Your task to perform on an android device: What's the news this weekend? Image 0: 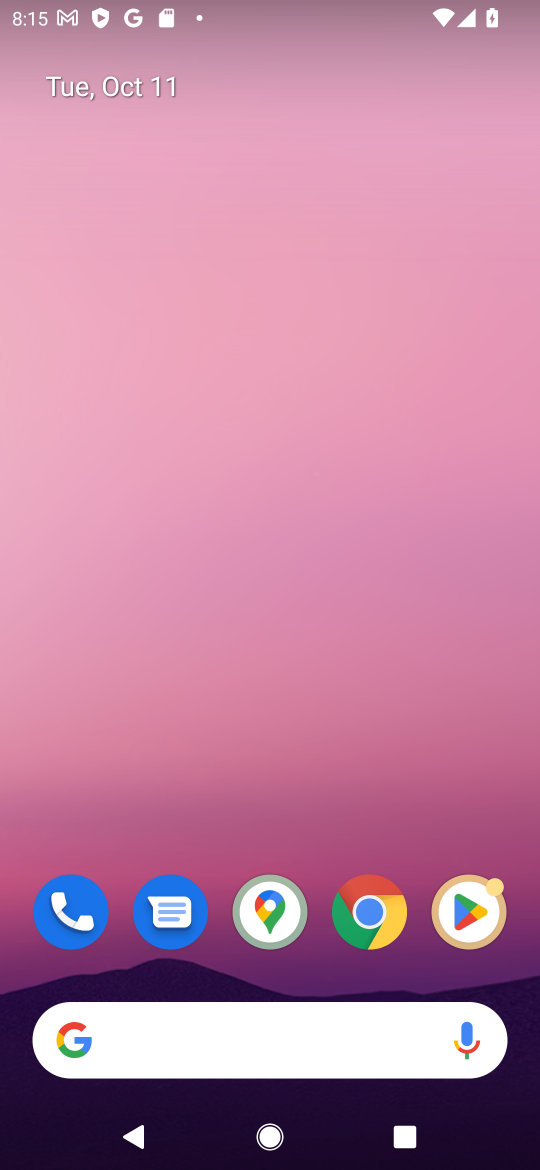
Step 0: click (378, 913)
Your task to perform on an android device: What's the news this weekend? Image 1: 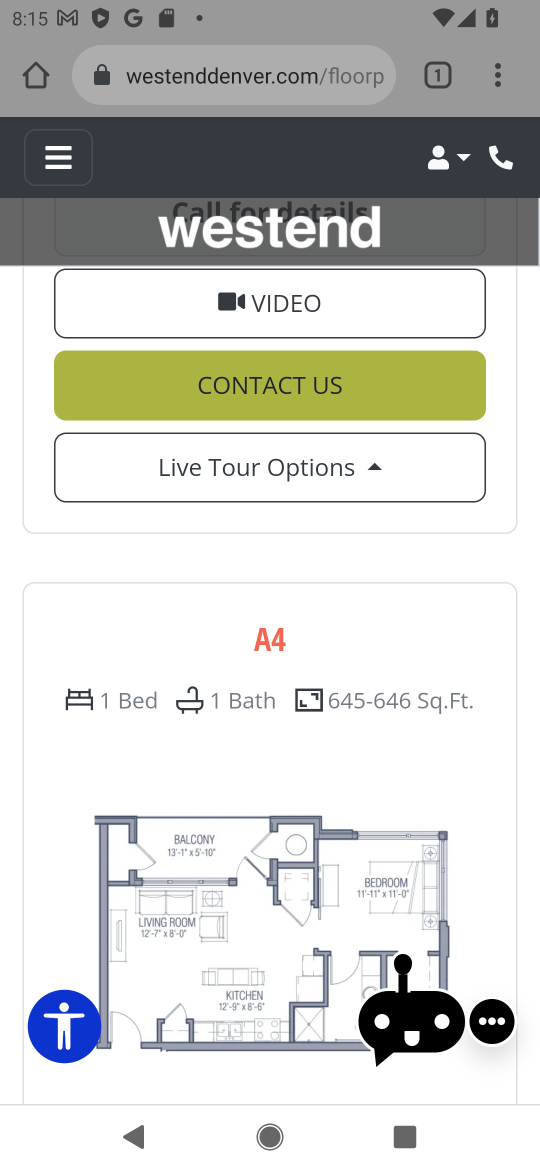
Step 1: click (208, 41)
Your task to perform on an android device: What's the news this weekend? Image 2: 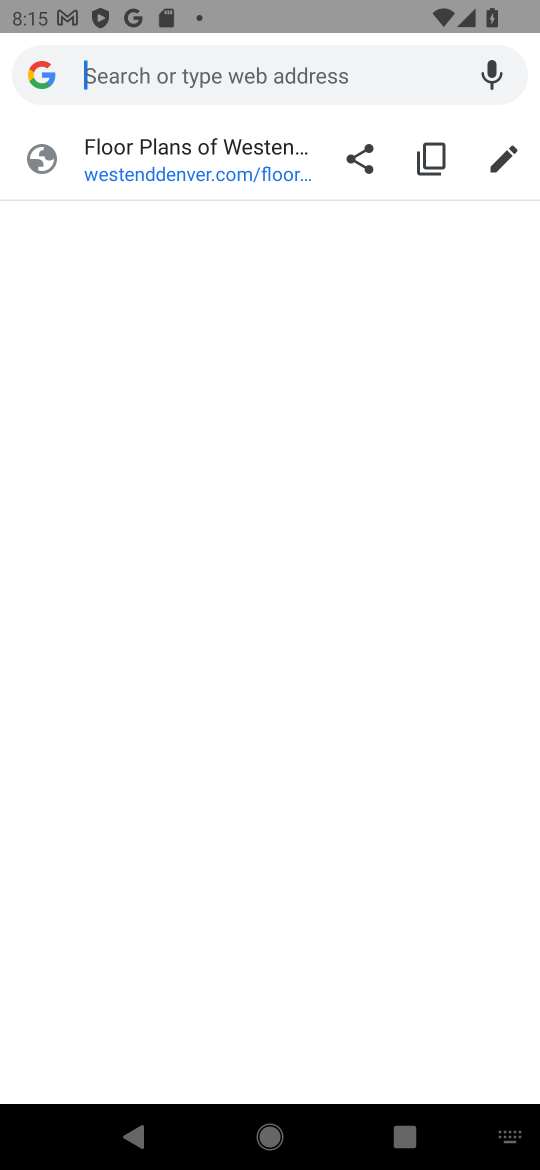
Step 2: type "news this weekend"
Your task to perform on an android device: What's the news this weekend? Image 3: 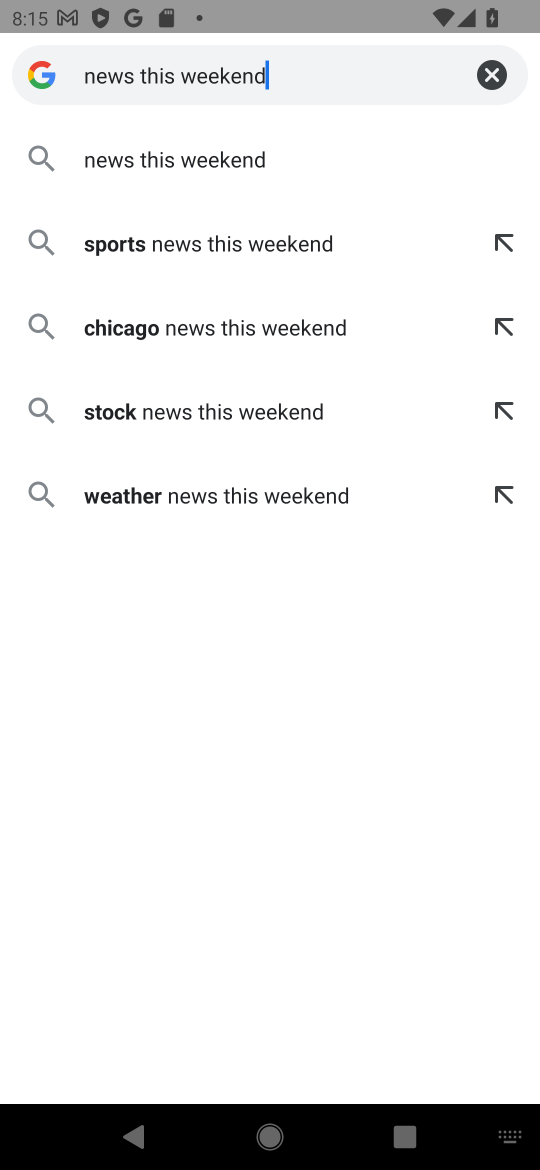
Step 3: click (159, 169)
Your task to perform on an android device: What's the news this weekend? Image 4: 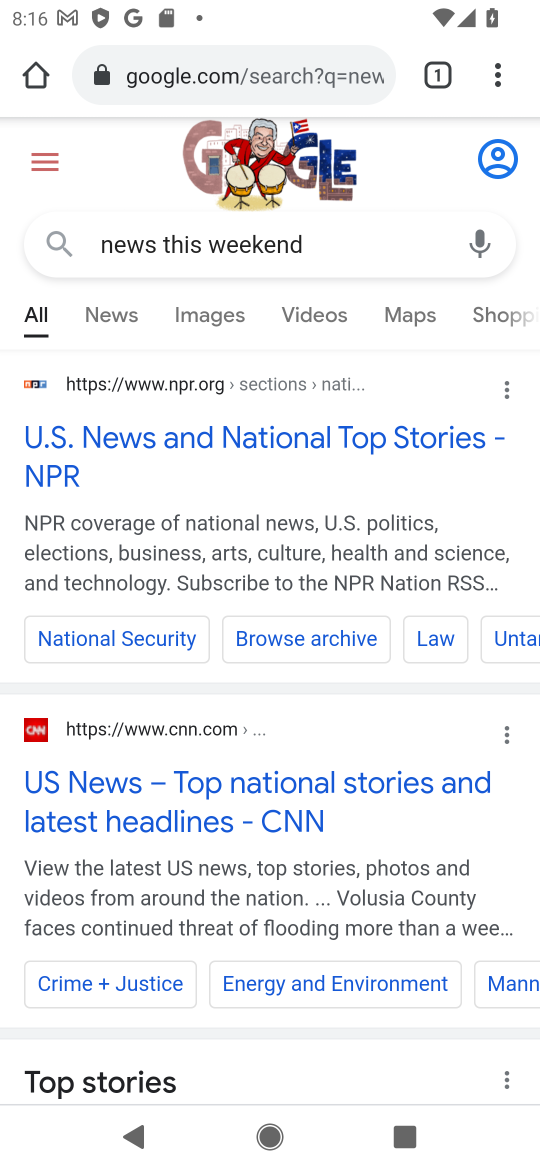
Step 4: click (88, 765)
Your task to perform on an android device: What's the news this weekend? Image 5: 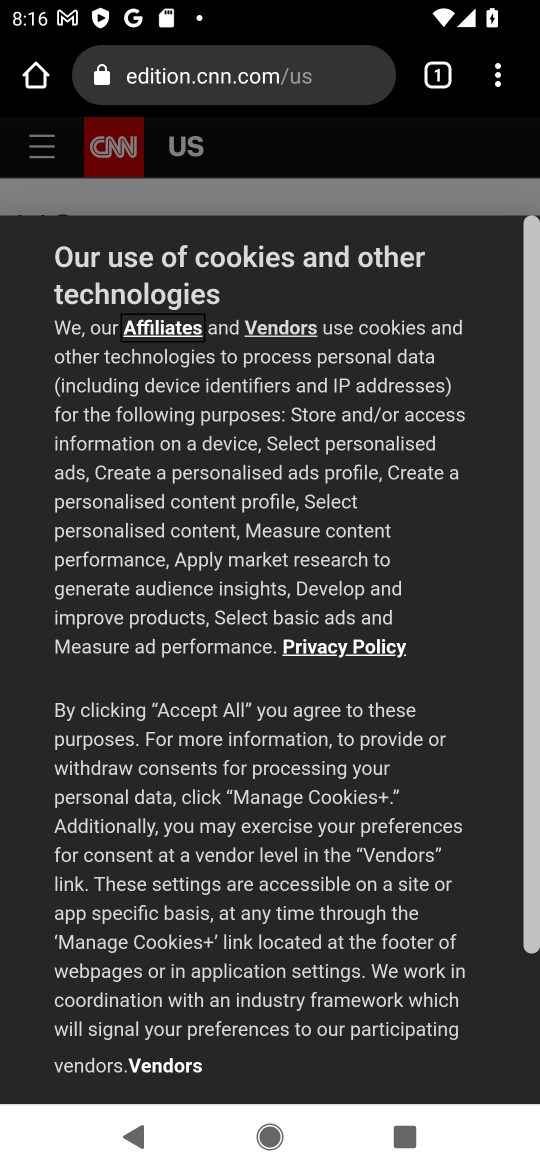
Step 5: drag from (239, 980) to (263, 400)
Your task to perform on an android device: What's the news this weekend? Image 6: 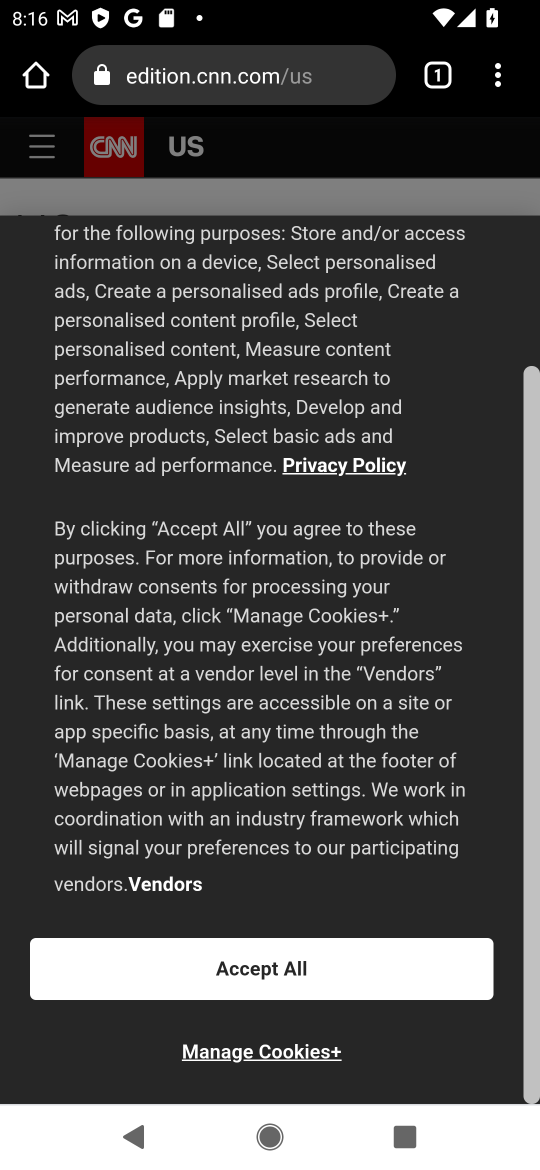
Step 6: click (252, 961)
Your task to perform on an android device: What's the news this weekend? Image 7: 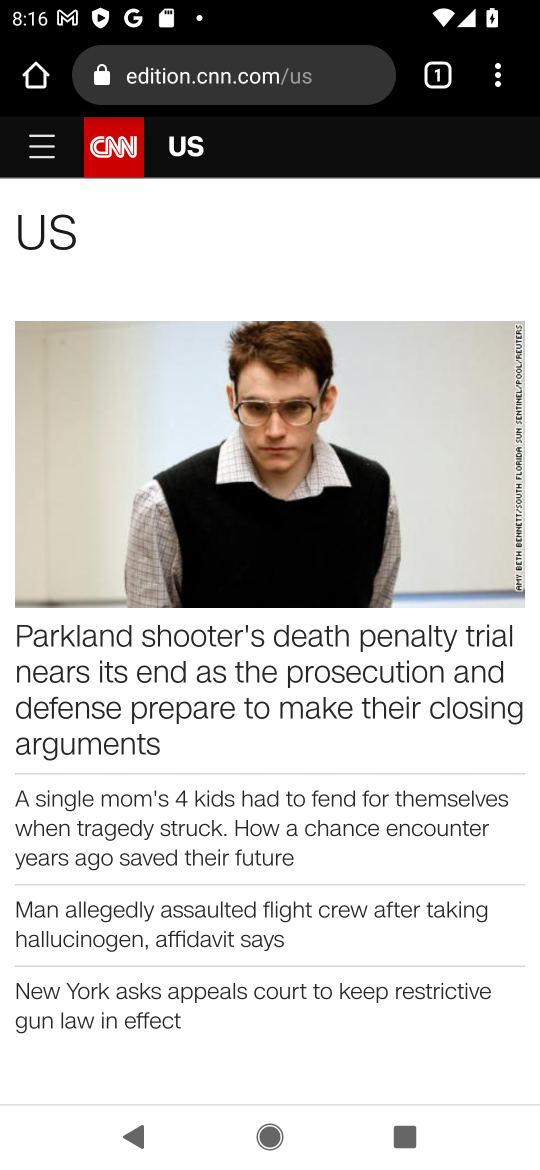
Step 7: task complete